Your task to perform on an android device: allow cookies in the chrome app Image 0: 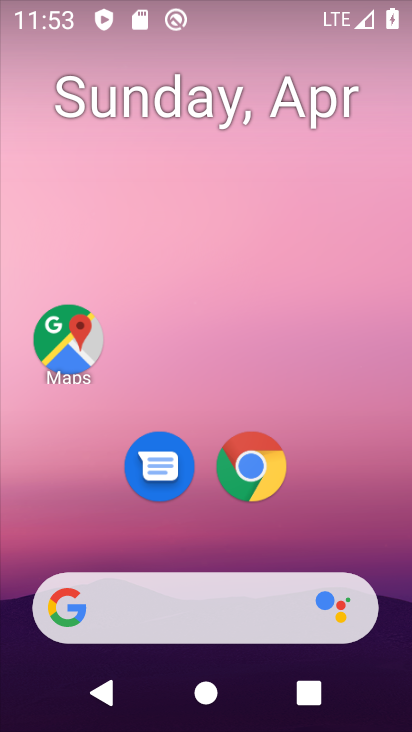
Step 0: drag from (382, 511) to (275, 10)
Your task to perform on an android device: allow cookies in the chrome app Image 1: 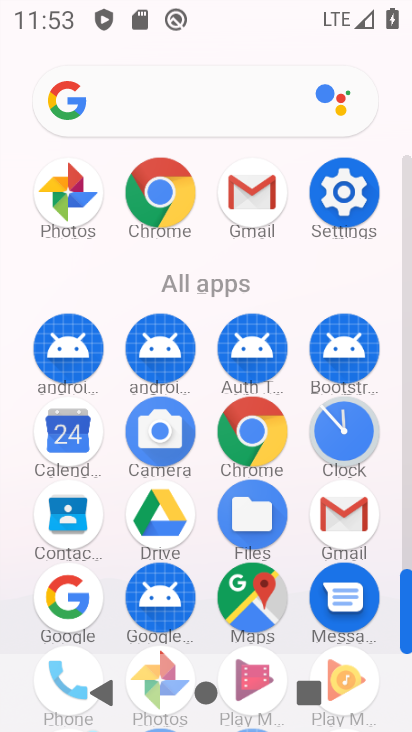
Step 1: click (170, 194)
Your task to perform on an android device: allow cookies in the chrome app Image 2: 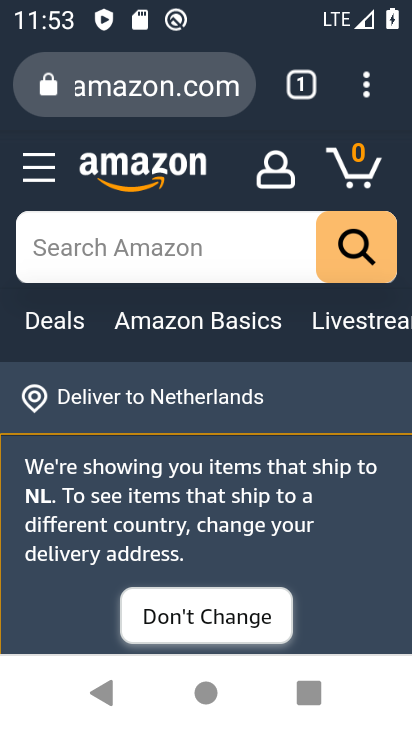
Step 2: click (365, 103)
Your task to perform on an android device: allow cookies in the chrome app Image 3: 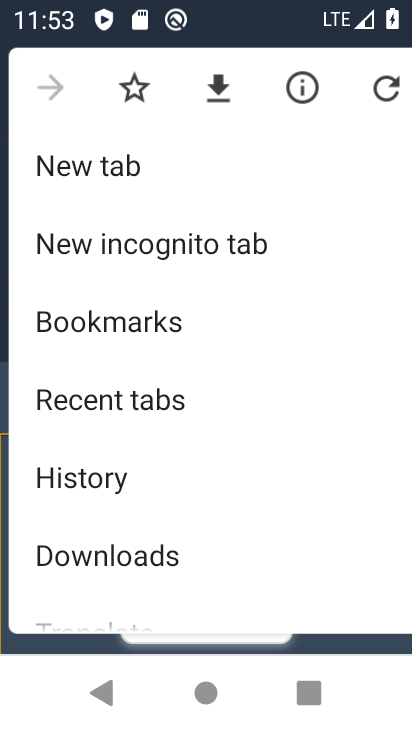
Step 3: drag from (149, 495) to (199, 134)
Your task to perform on an android device: allow cookies in the chrome app Image 4: 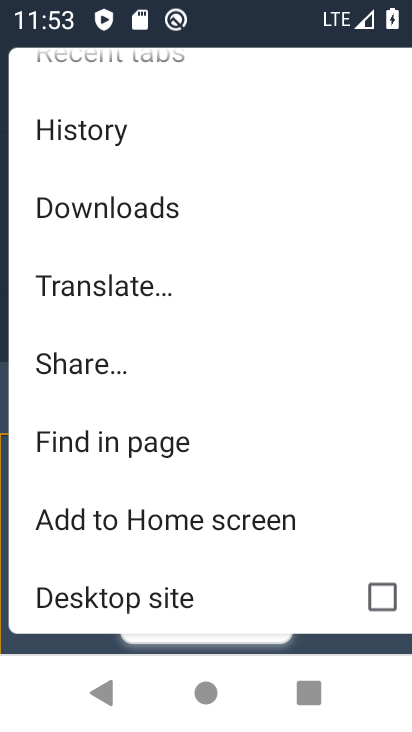
Step 4: drag from (277, 470) to (251, 96)
Your task to perform on an android device: allow cookies in the chrome app Image 5: 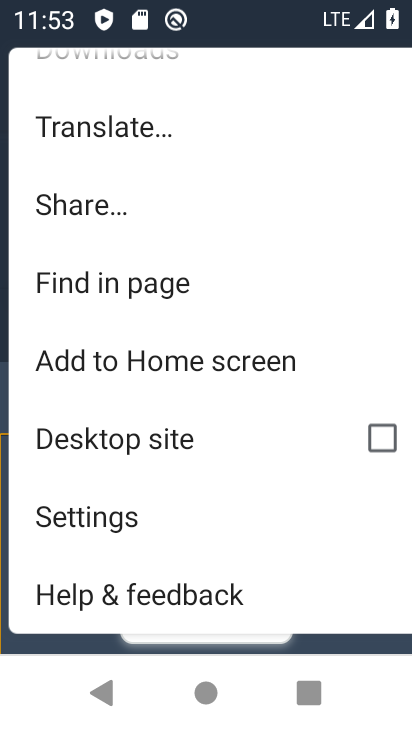
Step 5: click (228, 522)
Your task to perform on an android device: allow cookies in the chrome app Image 6: 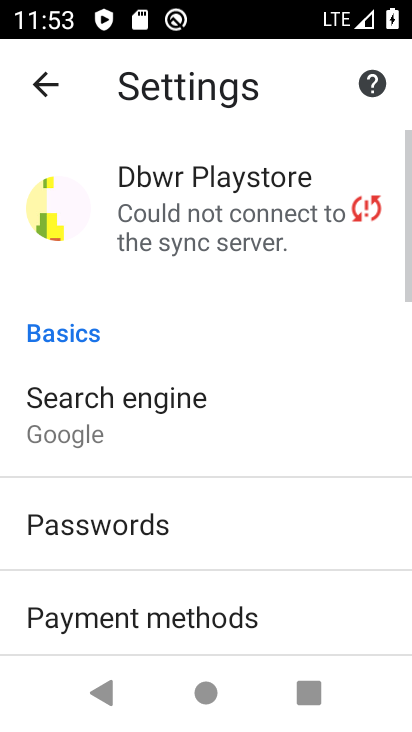
Step 6: drag from (273, 597) to (243, 197)
Your task to perform on an android device: allow cookies in the chrome app Image 7: 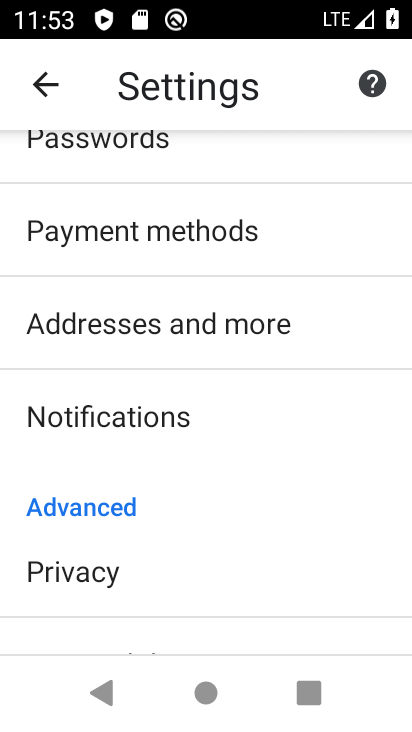
Step 7: drag from (269, 500) to (245, 108)
Your task to perform on an android device: allow cookies in the chrome app Image 8: 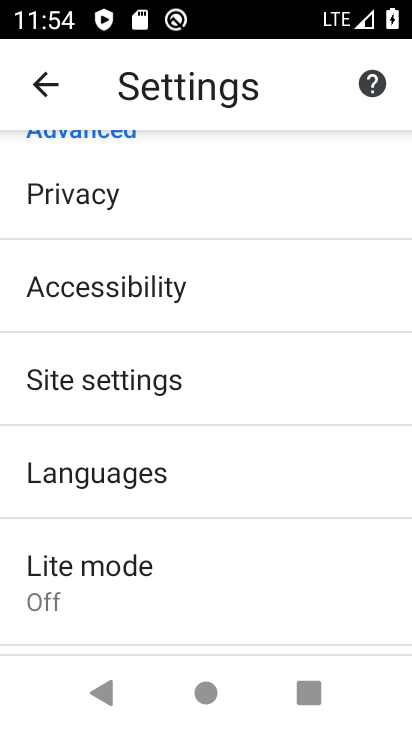
Step 8: click (255, 372)
Your task to perform on an android device: allow cookies in the chrome app Image 9: 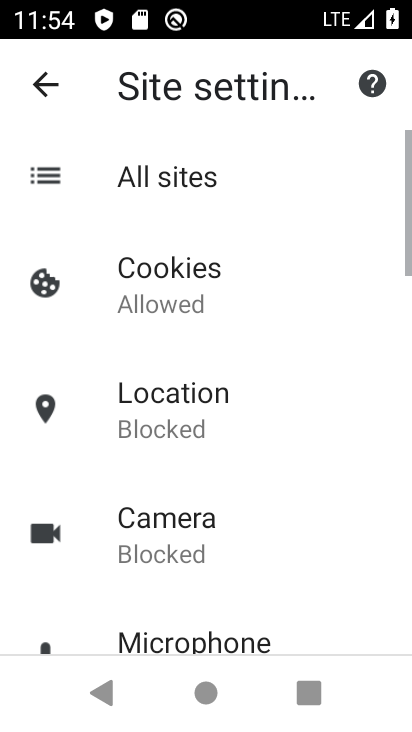
Step 9: click (255, 317)
Your task to perform on an android device: allow cookies in the chrome app Image 10: 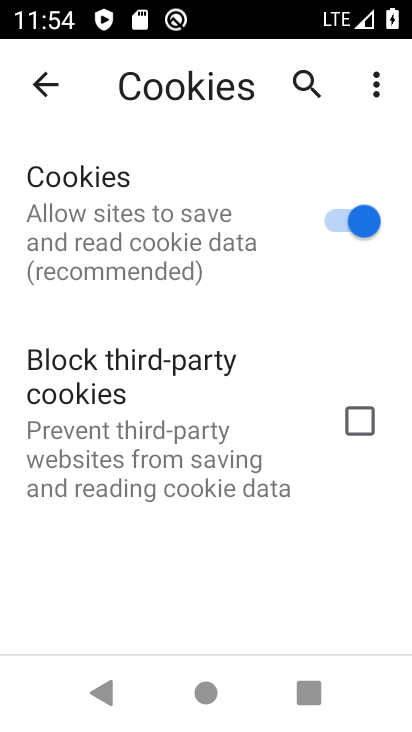
Step 10: task complete